Your task to perform on an android device: Open Amazon Image 0: 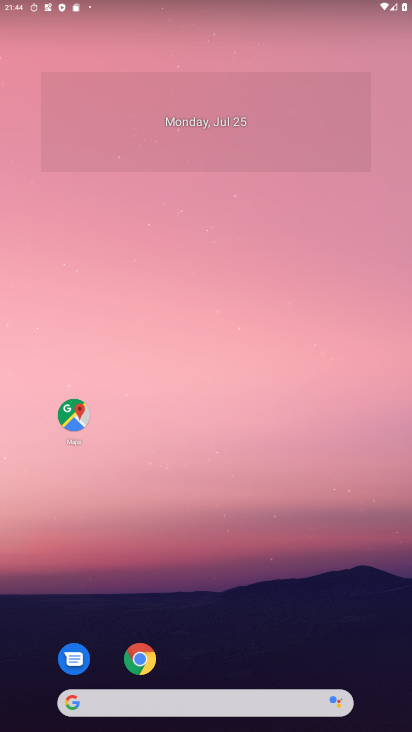
Step 0: click (146, 654)
Your task to perform on an android device: Open Amazon Image 1: 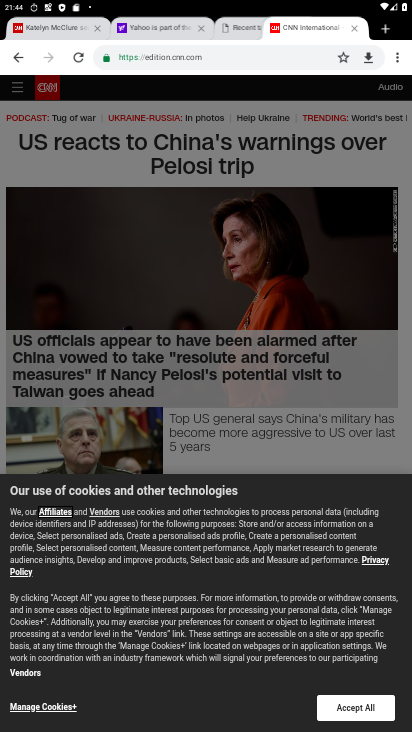
Step 1: click (386, 25)
Your task to perform on an android device: Open Amazon Image 2: 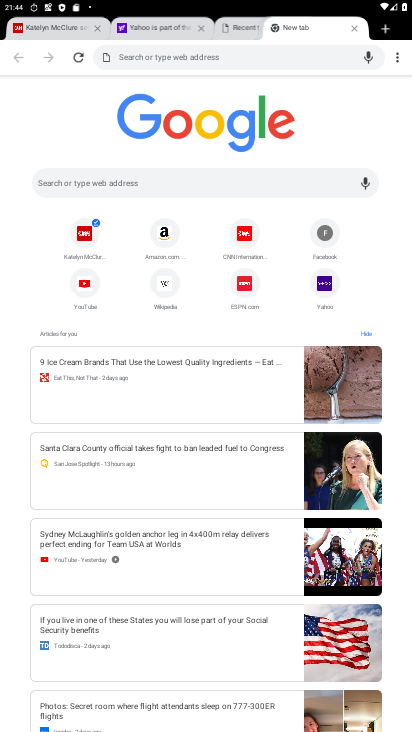
Step 2: click (155, 234)
Your task to perform on an android device: Open Amazon Image 3: 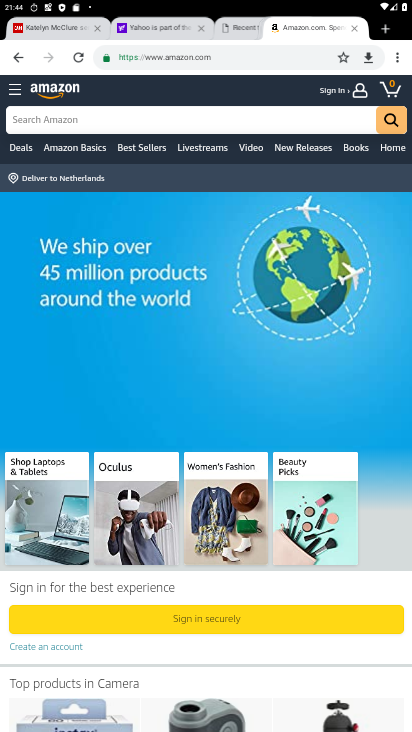
Step 3: task complete